Your task to perform on an android device: Open Maps and search for coffee Image 0: 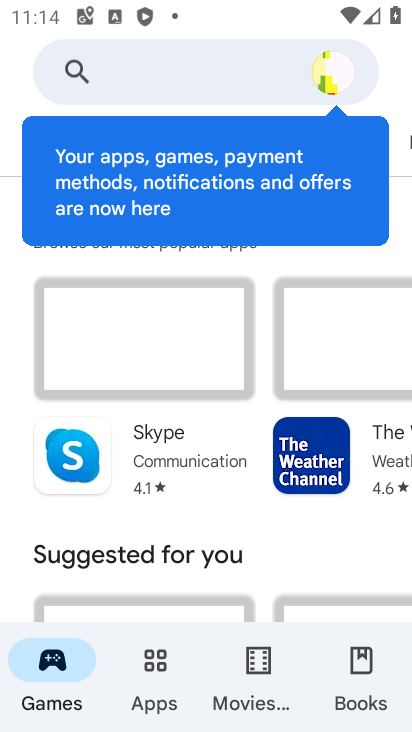
Step 0: press home button
Your task to perform on an android device: Open Maps and search for coffee Image 1: 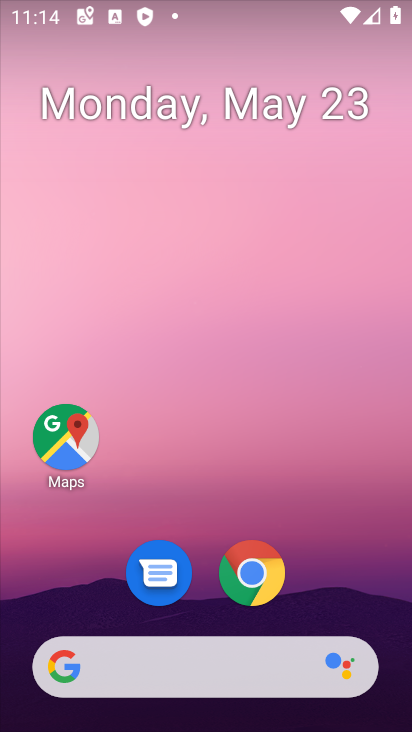
Step 1: click (57, 432)
Your task to perform on an android device: Open Maps and search for coffee Image 2: 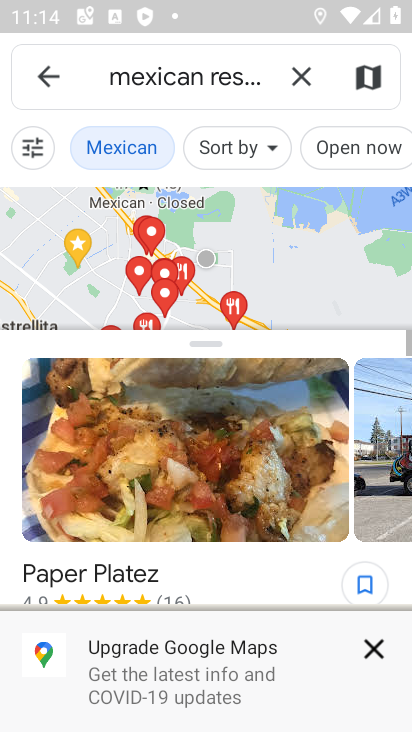
Step 2: click (292, 79)
Your task to perform on an android device: Open Maps and search for coffee Image 3: 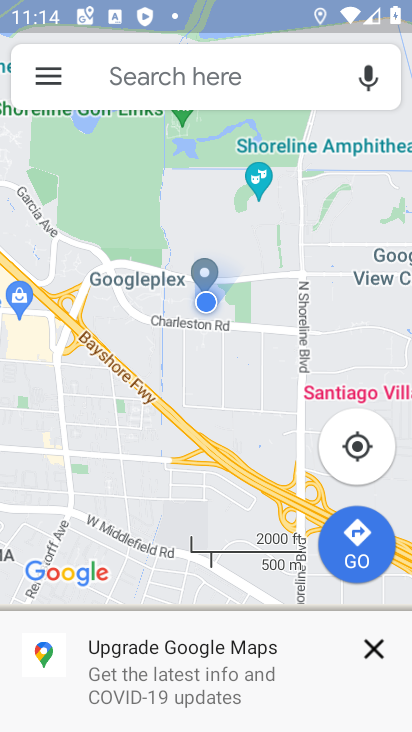
Step 3: click (218, 81)
Your task to perform on an android device: Open Maps and search for coffee Image 4: 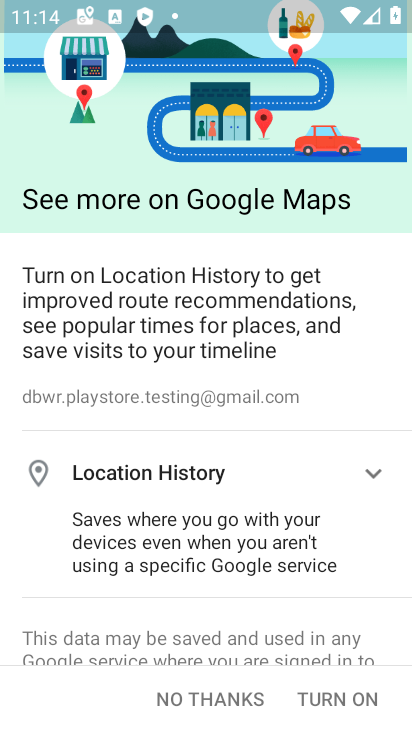
Step 4: click (354, 703)
Your task to perform on an android device: Open Maps and search for coffee Image 5: 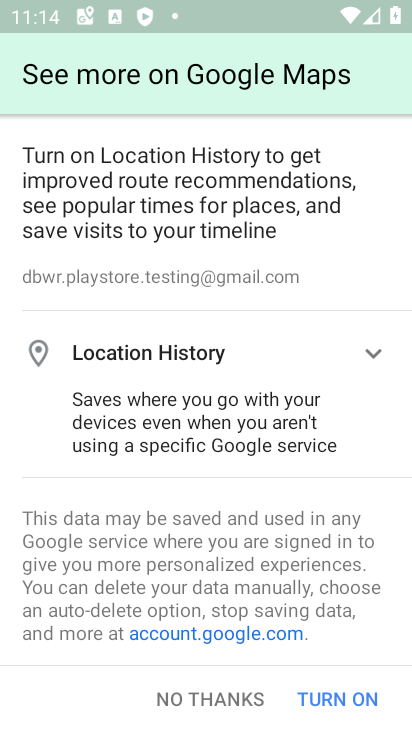
Step 5: click (354, 703)
Your task to perform on an android device: Open Maps and search for coffee Image 6: 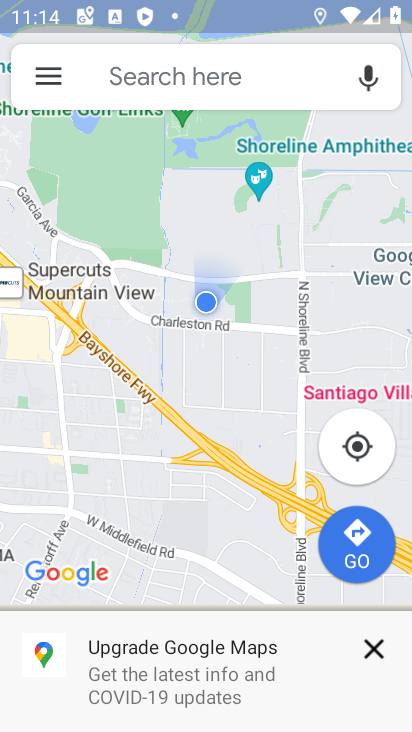
Step 6: click (189, 77)
Your task to perform on an android device: Open Maps and search for coffee Image 7: 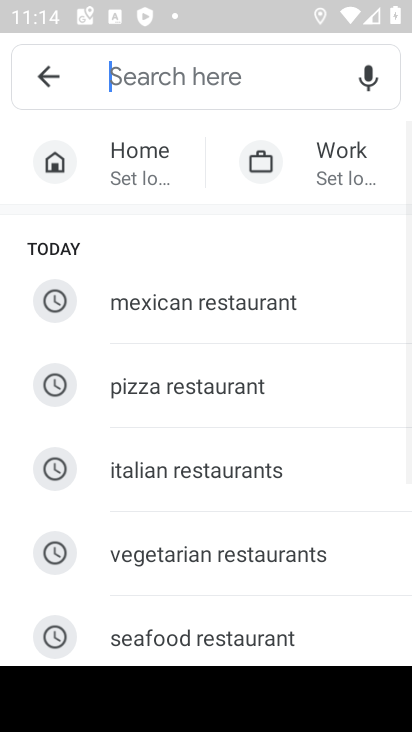
Step 7: drag from (186, 495) to (170, 246)
Your task to perform on an android device: Open Maps and search for coffee Image 8: 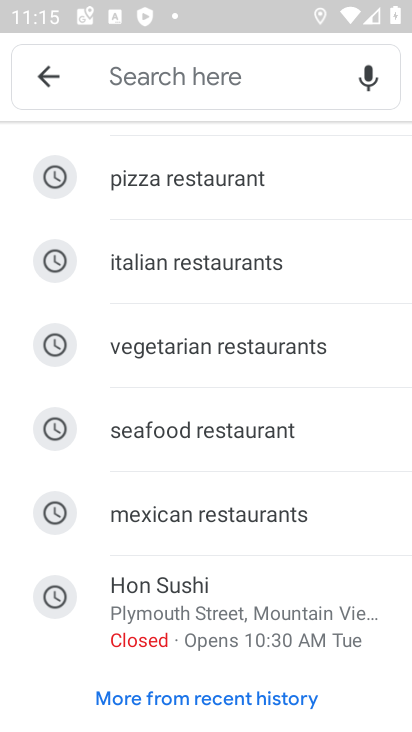
Step 8: drag from (171, 612) to (161, 264)
Your task to perform on an android device: Open Maps and search for coffee Image 9: 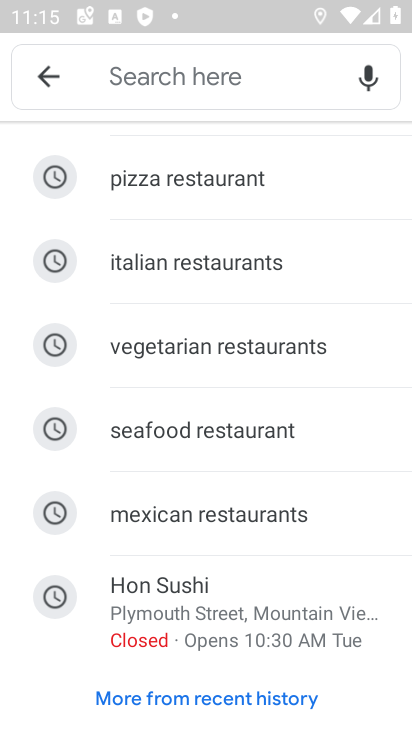
Step 9: type "coffee"
Your task to perform on an android device: Open Maps and search for coffee Image 10: 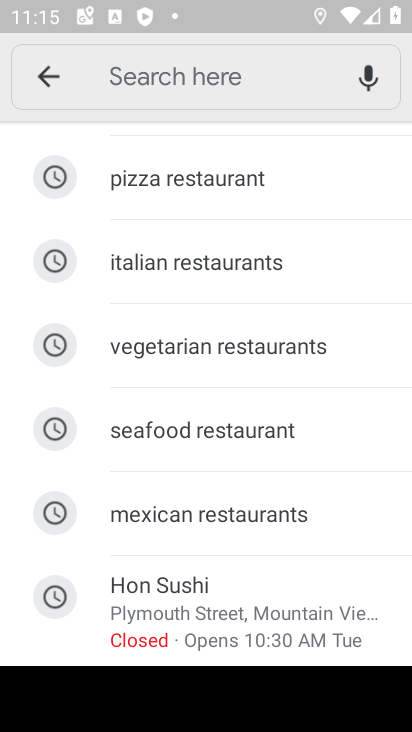
Step 10: click (159, 78)
Your task to perform on an android device: Open Maps and search for coffee Image 11: 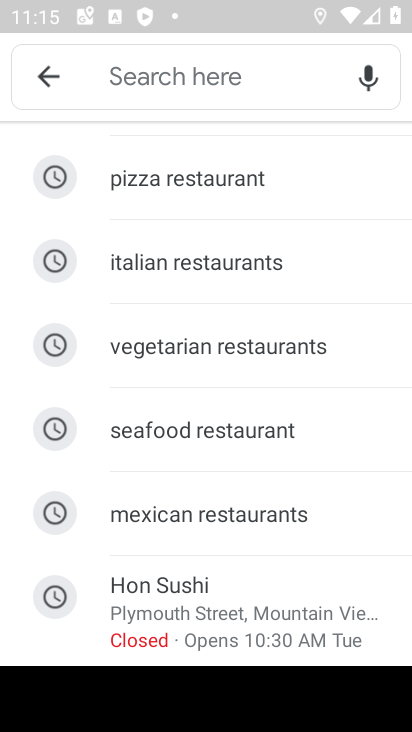
Step 11: type "coffee"
Your task to perform on an android device: Open Maps and search for coffee Image 12: 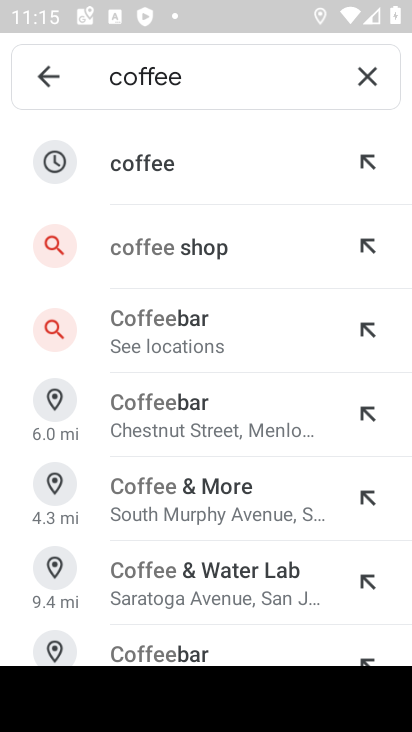
Step 12: click (157, 252)
Your task to perform on an android device: Open Maps and search for coffee Image 13: 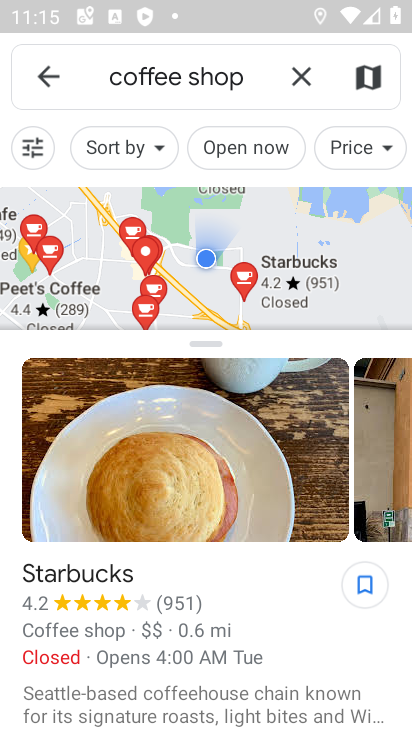
Step 13: task complete